Your task to perform on an android device: Go to eBay Image 0: 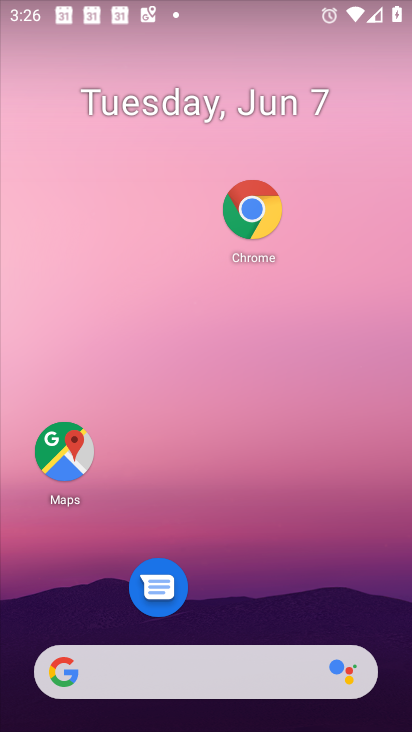
Step 0: click (265, 213)
Your task to perform on an android device: Go to eBay Image 1: 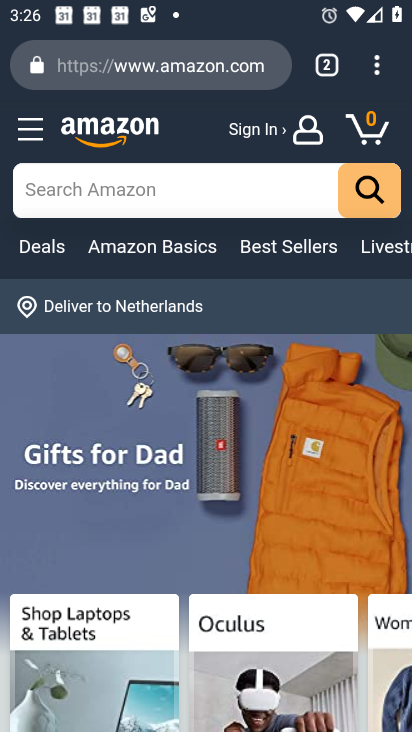
Step 1: click (181, 62)
Your task to perform on an android device: Go to eBay Image 2: 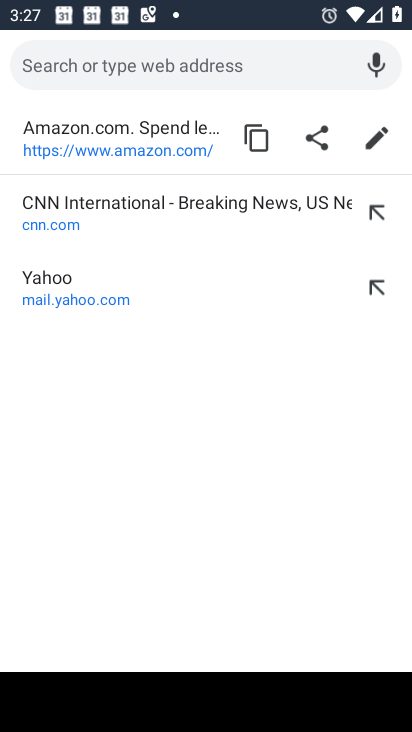
Step 2: type "ebay"
Your task to perform on an android device: Go to eBay Image 3: 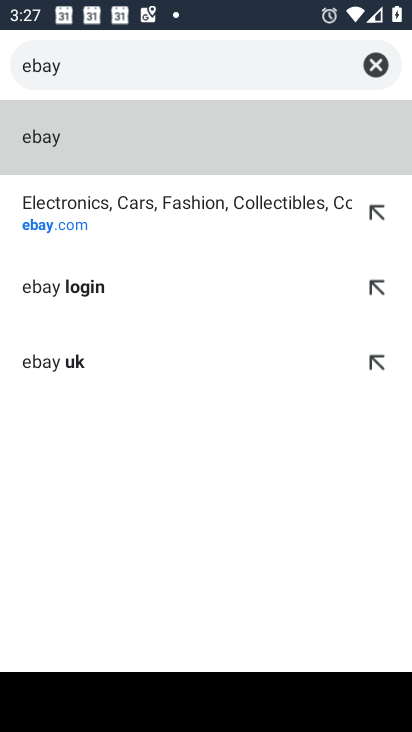
Step 3: click (246, 206)
Your task to perform on an android device: Go to eBay Image 4: 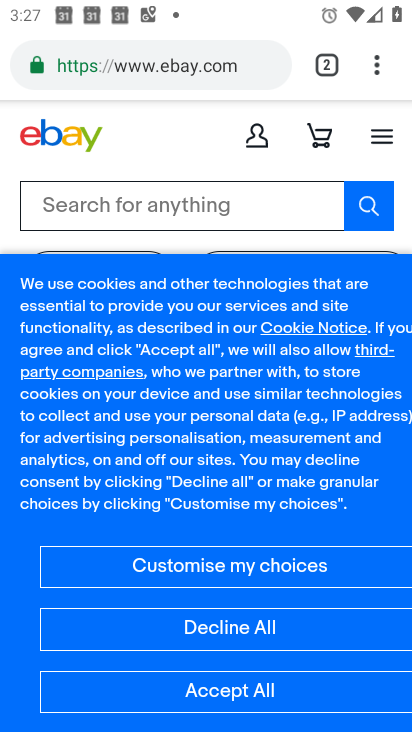
Step 4: task complete